Your task to perform on an android device: toggle wifi Image 0: 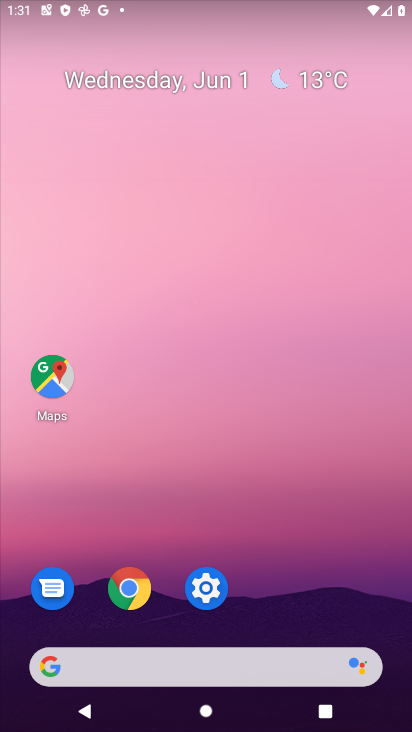
Step 0: press home button
Your task to perform on an android device: toggle wifi Image 1: 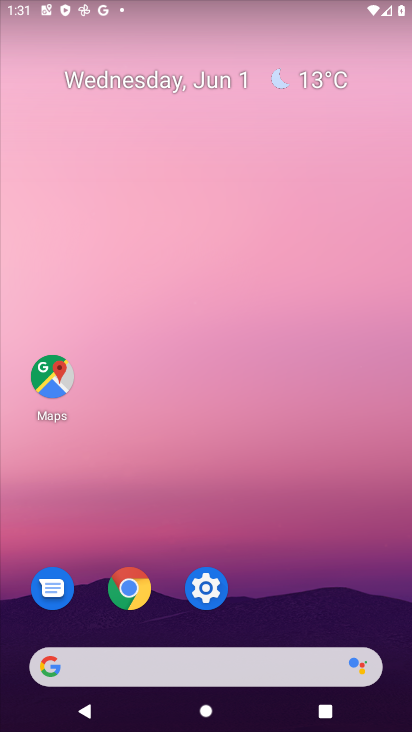
Step 1: click (214, 584)
Your task to perform on an android device: toggle wifi Image 2: 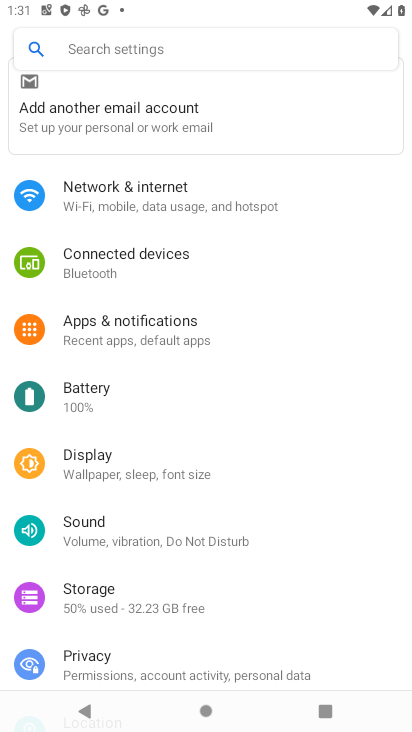
Step 2: click (128, 196)
Your task to perform on an android device: toggle wifi Image 3: 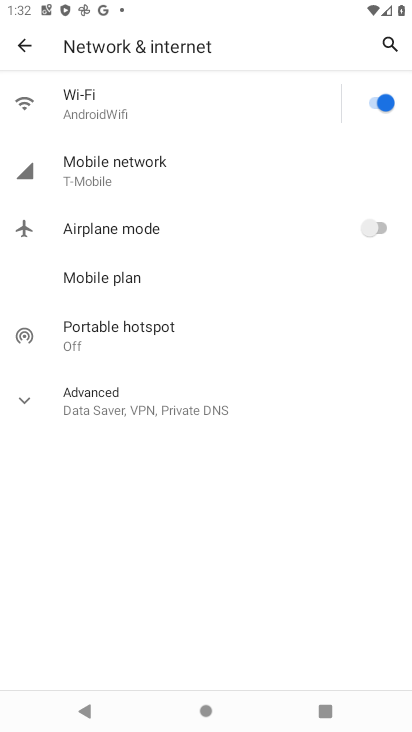
Step 3: task complete